Your task to perform on an android device: Go to Google Image 0: 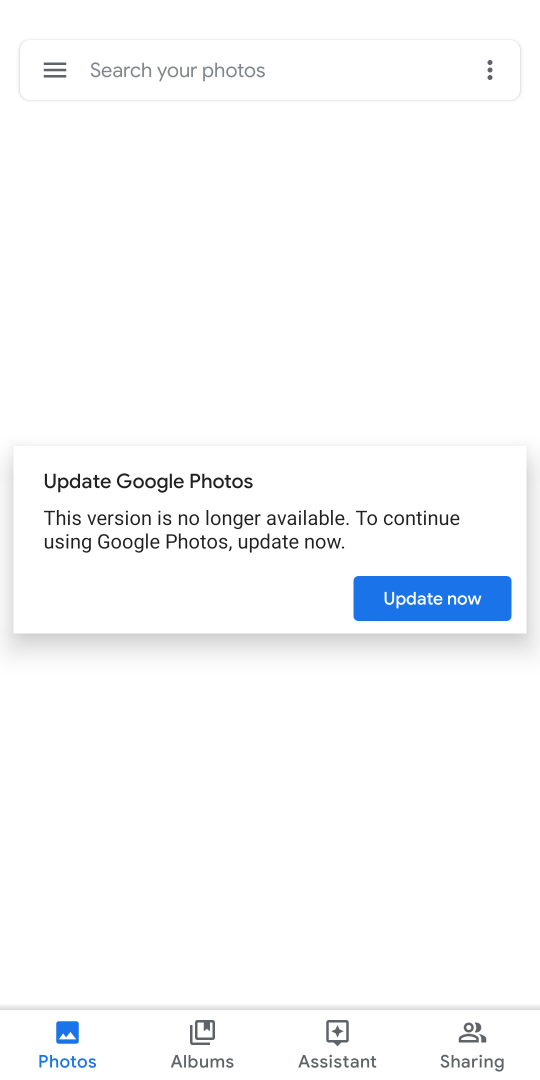
Step 0: press home button
Your task to perform on an android device: Go to Google Image 1: 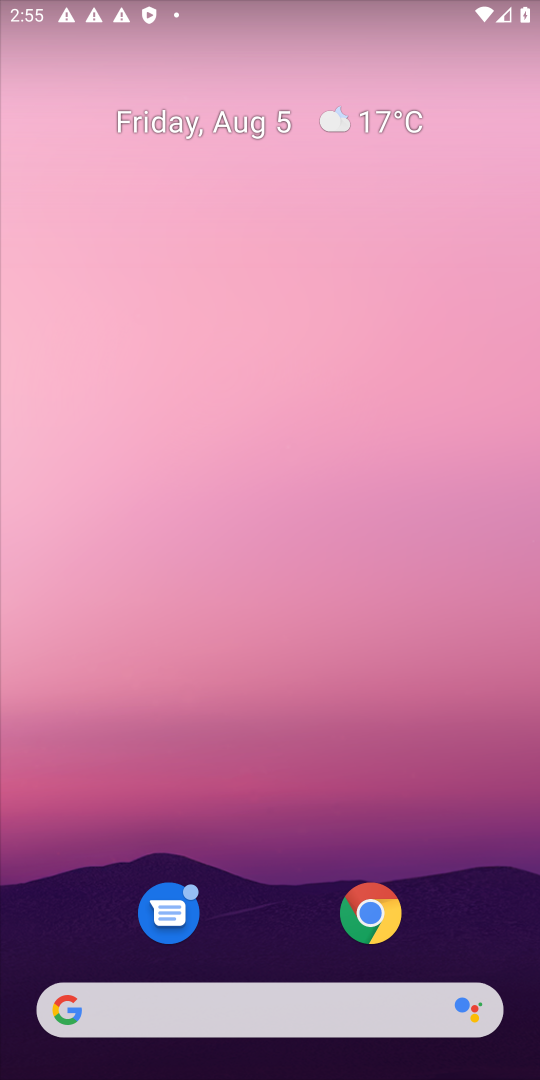
Step 1: drag from (330, 690) to (355, 127)
Your task to perform on an android device: Go to Google Image 2: 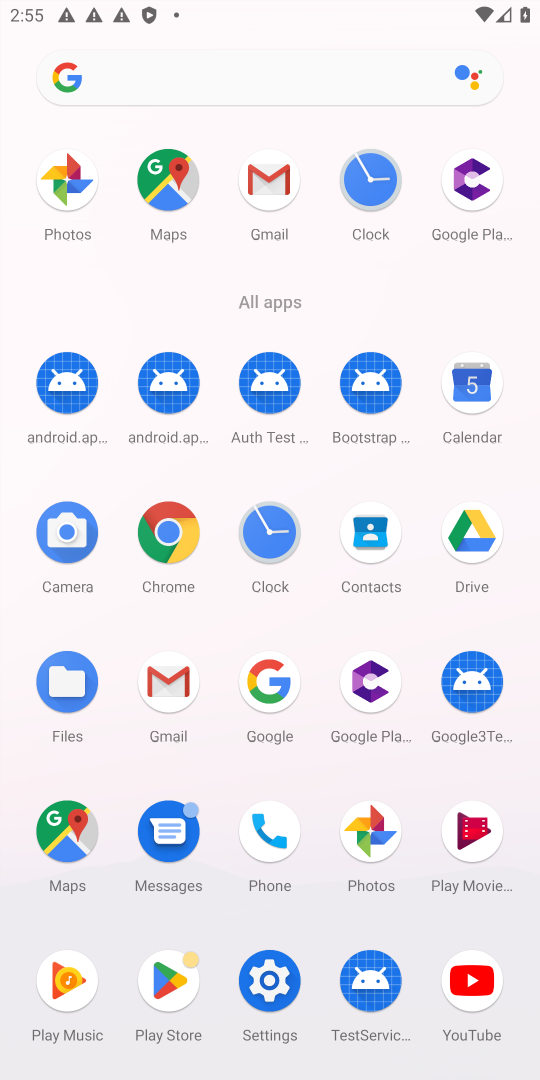
Step 2: click (275, 693)
Your task to perform on an android device: Go to Google Image 3: 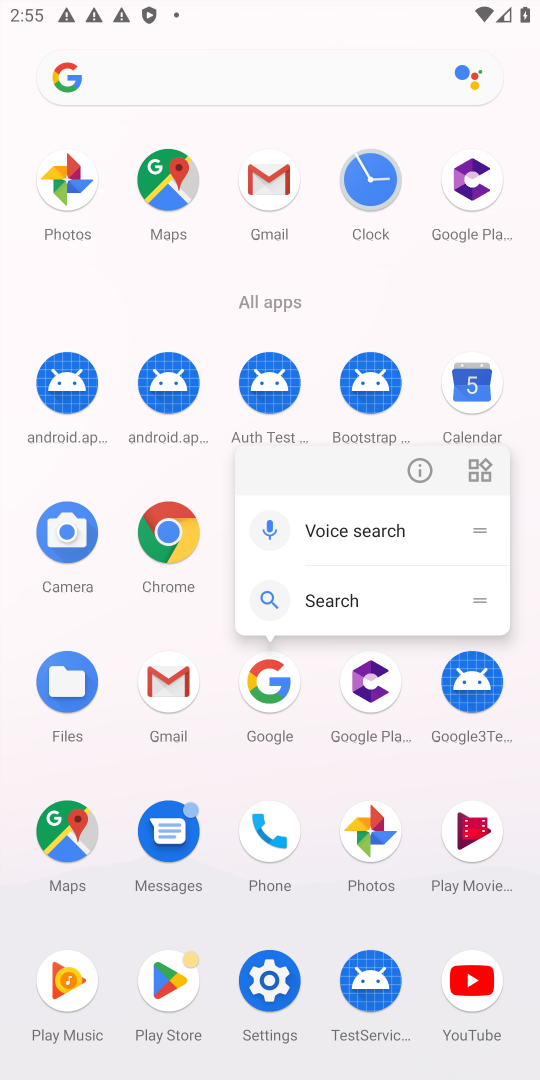
Step 3: click (275, 687)
Your task to perform on an android device: Go to Google Image 4: 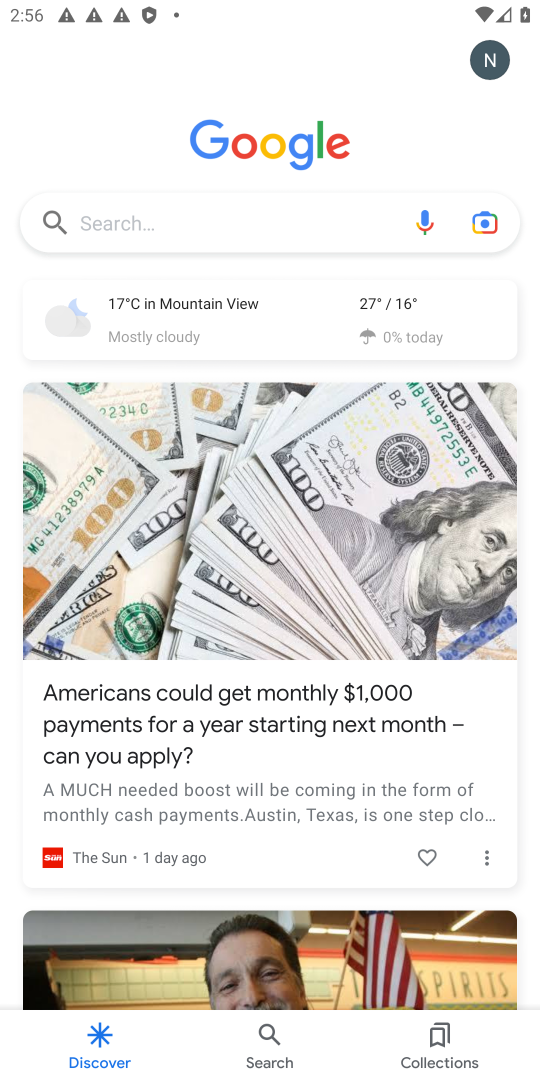
Step 4: task complete